Your task to perform on an android device: Go to Google Image 0: 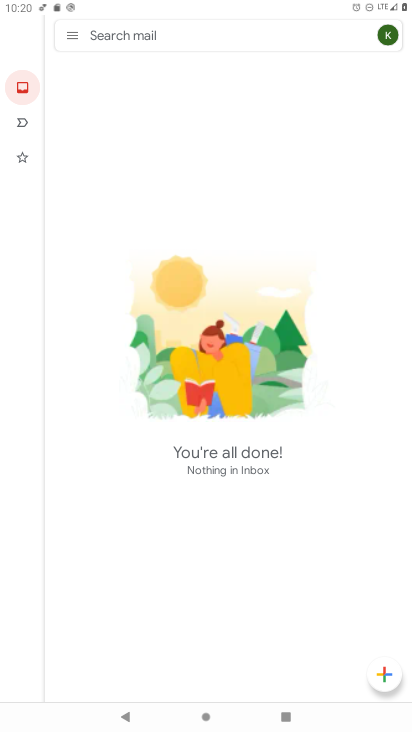
Step 0: press home button
Your task to perform on an android device: Go to Google Image 1: 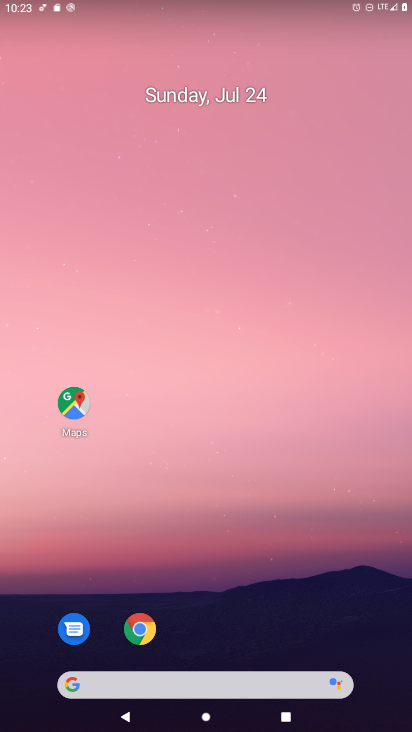
Step 1: drag from (383, 601) to (112, 1)
Your task to perform on an android device: Go to Google Image 2: 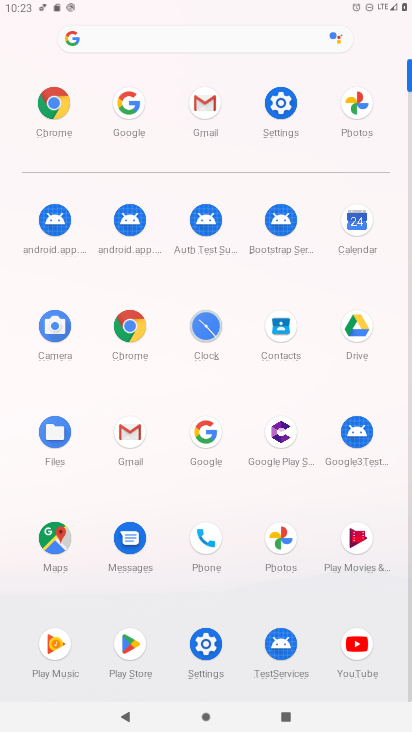
Step 2: click (191, 431)
Your task to perform on an android device: Go to Google Image 3: 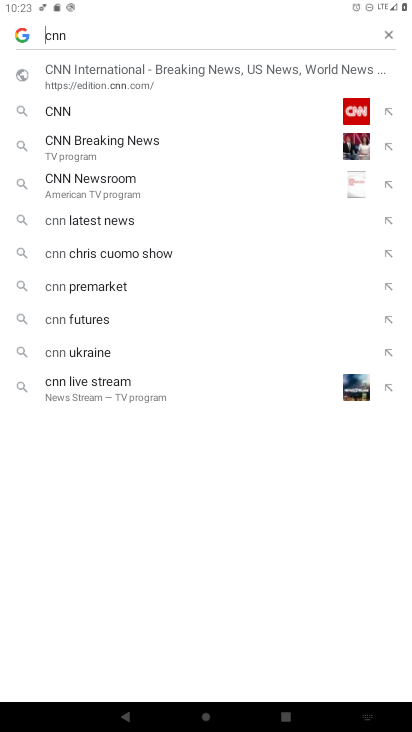
Step 3: click (383, 30)
Your task to perform on an android device: Go to Google Image 4: 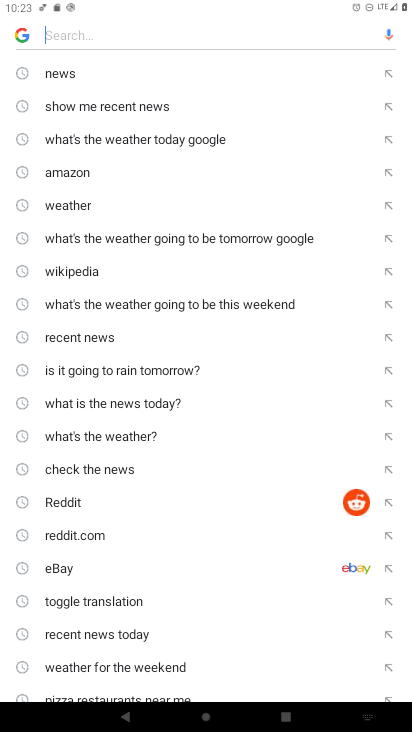
Step 4: task complete